Your task to perform on an android device: What is the news today? Image 0: 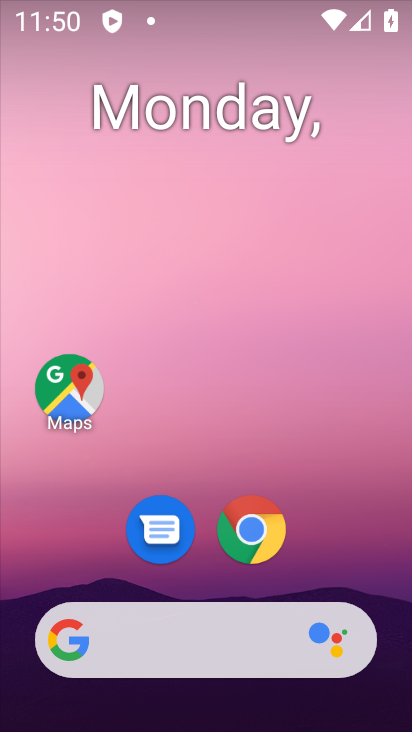
Step 0: drag from (400, 549) to (318, 98)
Your task to perform on an android device: What is the news today? Image 1: 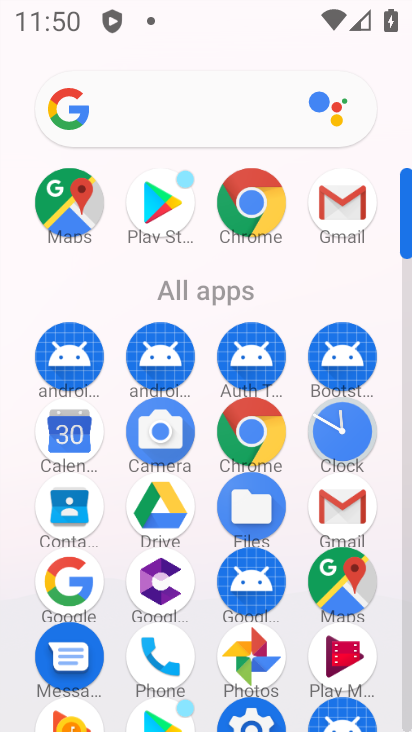
Step 1: click (251, 251)
Your task to perform on an android device: What is the news today? Image 2: 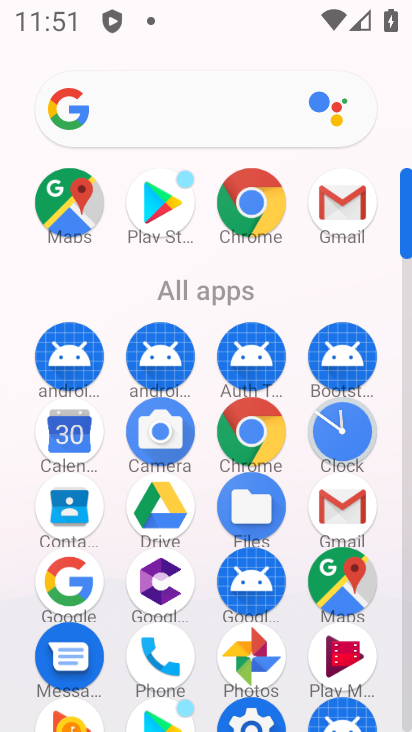
Step 2: click (235, 205)
Your task to perform on an android device: What is the news today? Image 3: 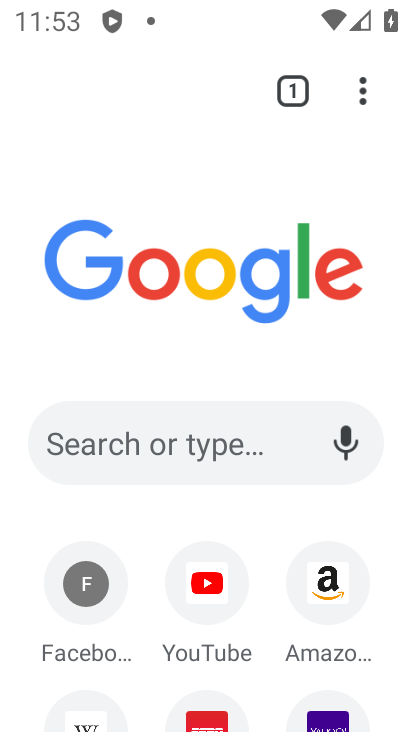
Step 3: type "What is the news today?"
Your task to perform on an android device: What is the news today? Image 4: 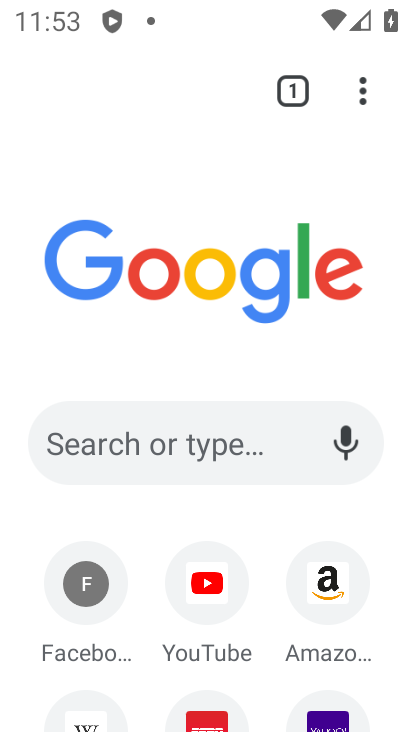
Step 4: click (57, 464)
Your task to perform on an android device: What is the news today? Image 5: 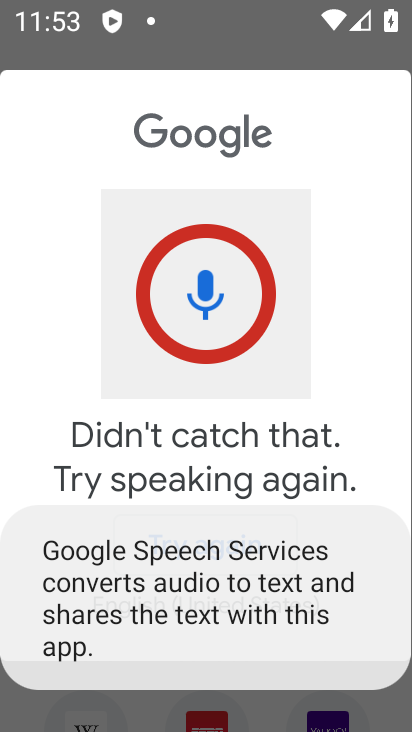
Step 5: type ""
Your task to perform on an android device: What is the news today? Image 6: 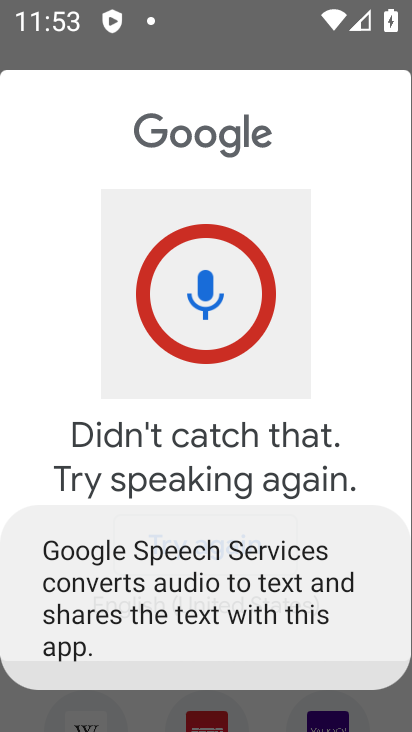
Step 6: click (120, 442)
Your task to perform on an android device: What is the news today? Image 7: 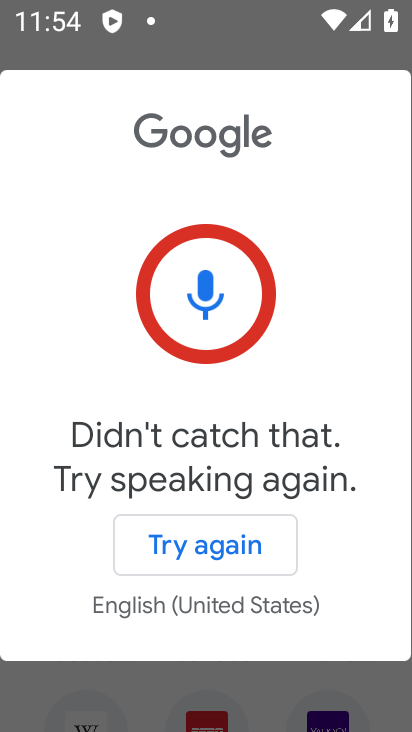
Step 7: click (248, 676)
Your task to perform on an android device: What is the news today? Image 8: 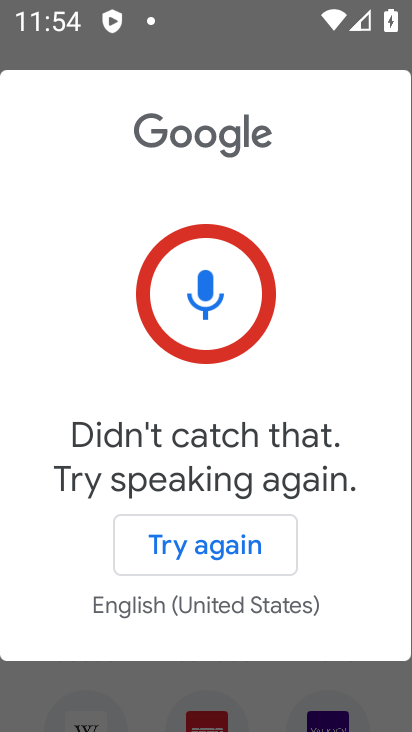
Step 8: click (147, 17)
Your task to perform on an android device: What is the news today? Image 9: 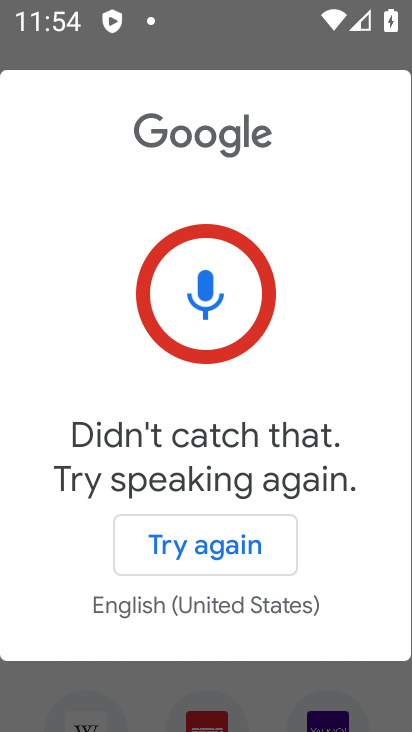
Step 9: press back button
Your task to perform on an android device: What is the news today? Image 10: 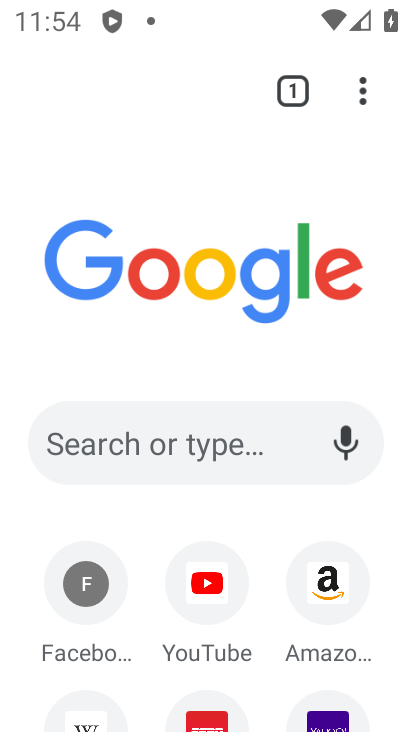
Step 10: click (207, 460)
Your task to perform on an android device: What is the news today? Image 11: 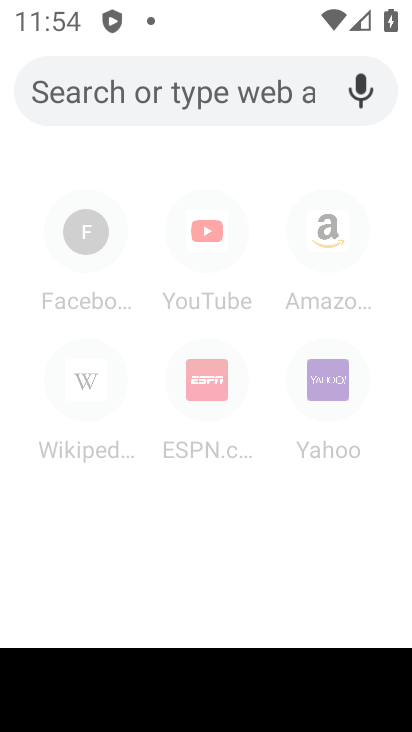
Step 11: type "What is the news today?"
Your task to perform on an android device: What is the news today? Image 12: 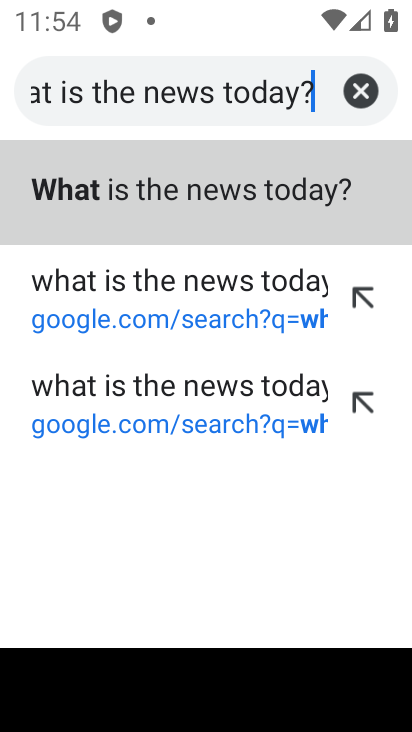
Step 12: type ""
Your task to perform on an android device: What is the news today? Image 13: 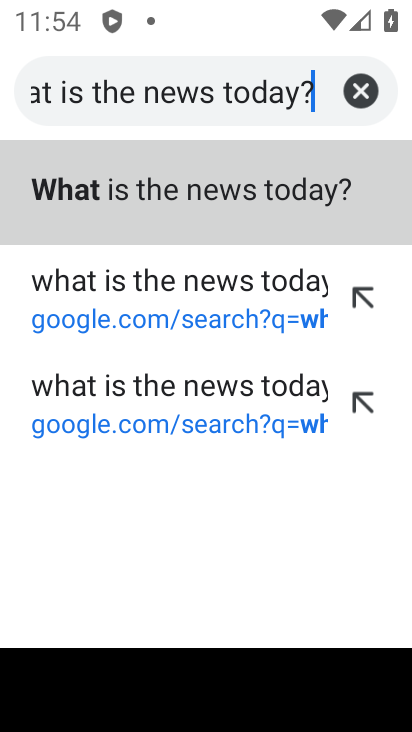
Step 13: click (131, 164)
Your task to perform on an android device: What is the news today? Image 14: 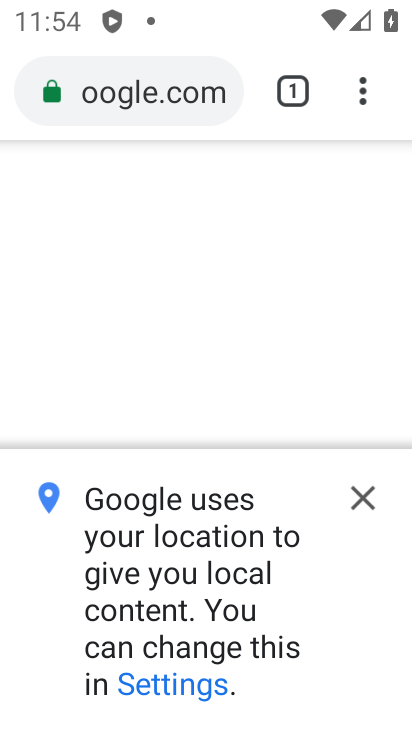
Step 14: task complete